Your task to perform on an android device: turn off smart reply in the gmail app Image 0: 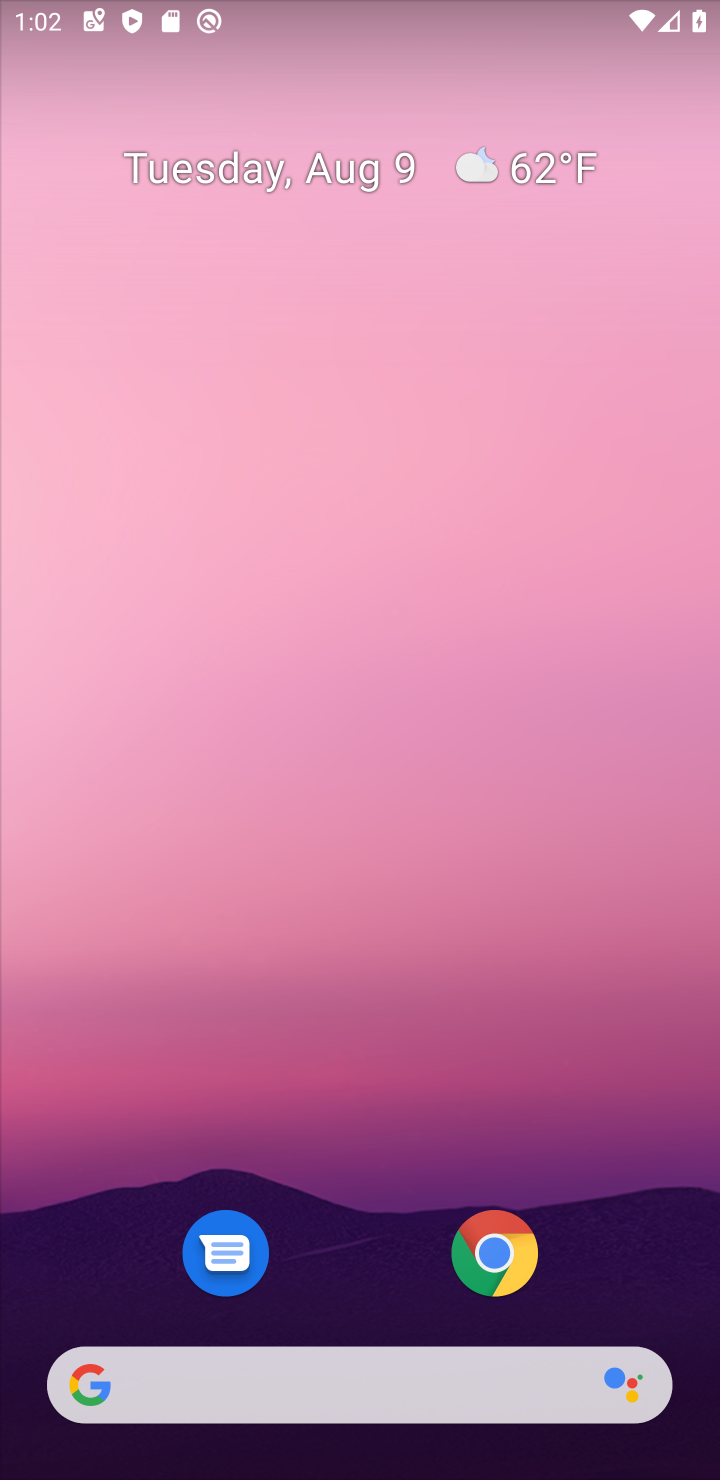
Step 0: drag from (627, 1257) to (389, 36)
Your task to perform on an android device: turn off smart reply in the gmail app Image 1: 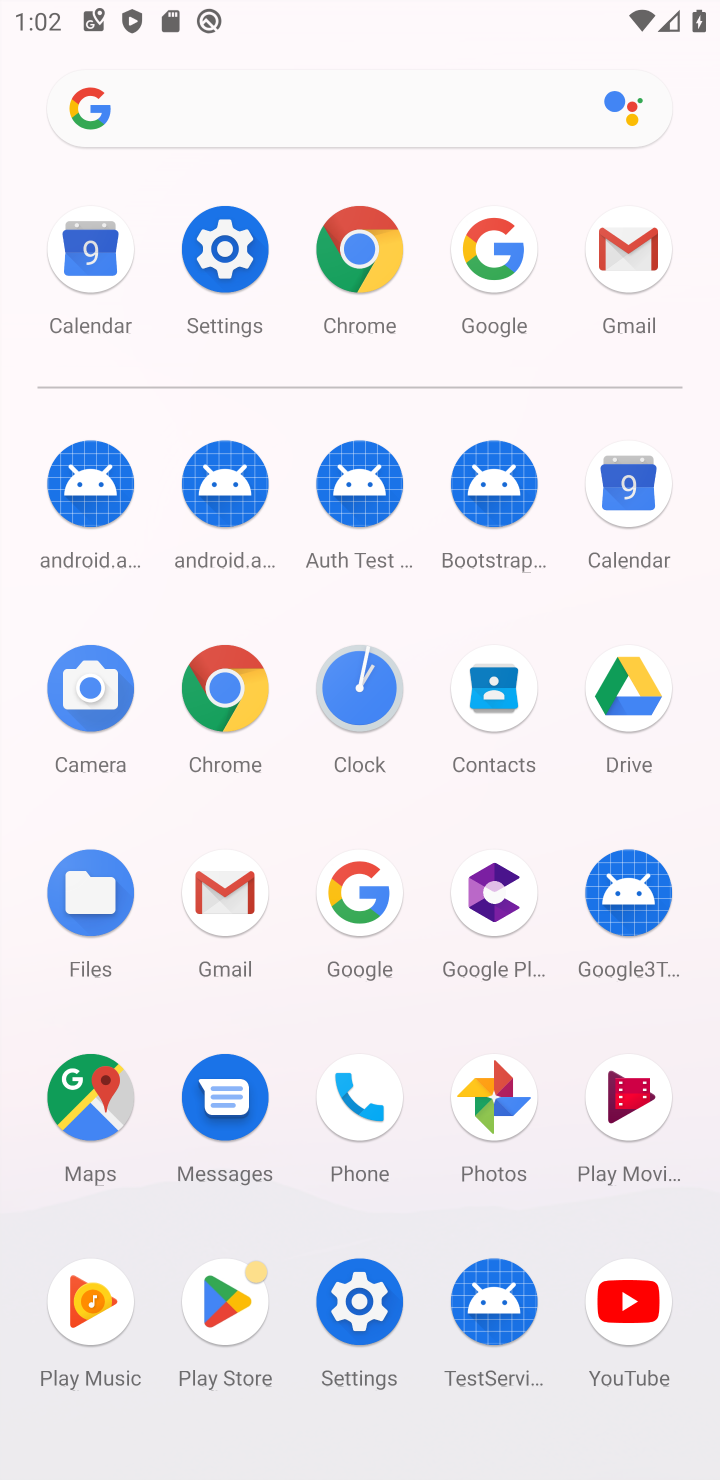
Step 1: click (231, 943)
Your task to perform on an android device: turn off smart reply in the gmail app Image 2: 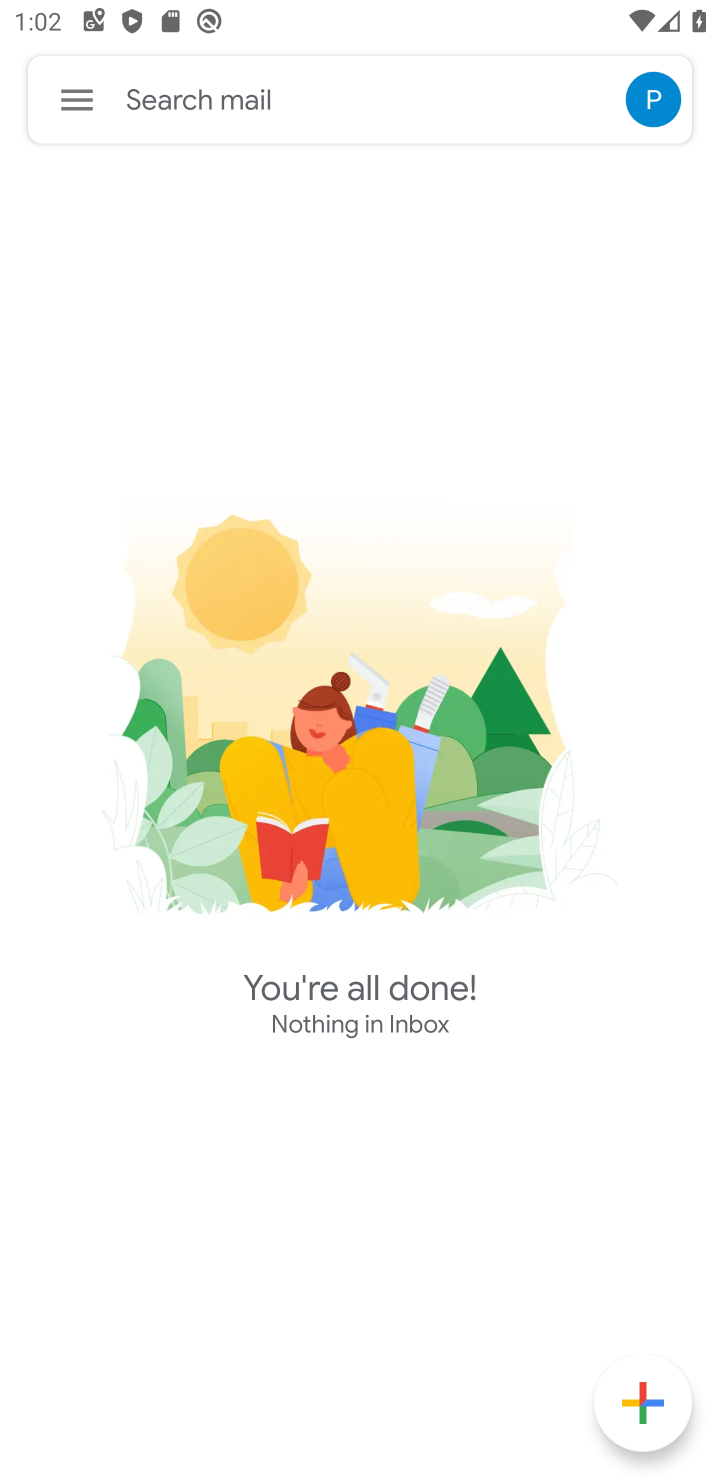
Step 2: click (66, 106)
Your task to perform on an android device: turn off smart reply in the gmail app Image 3: 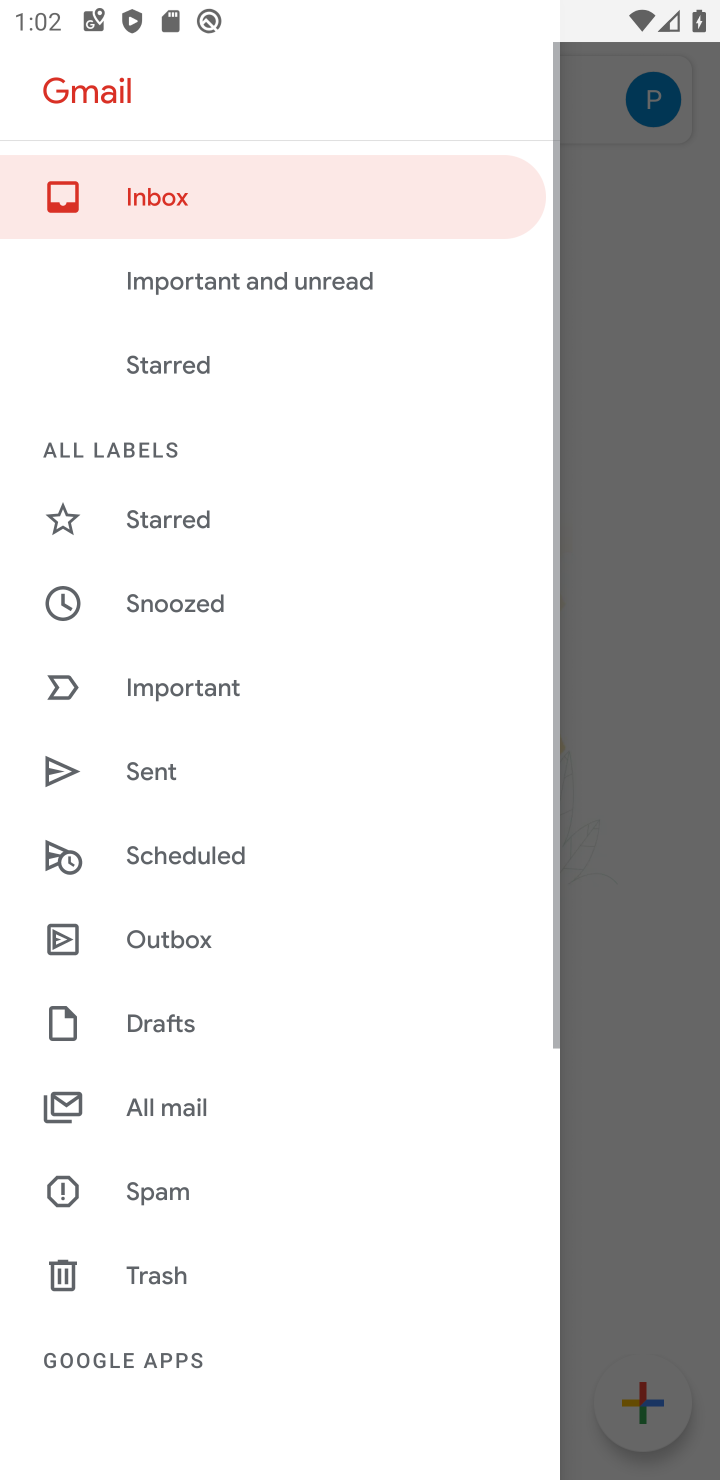
Step 3: drag from (207, 1306) to (211, 86)
Your task to perform on an android device: turn off smart reply in the gmail app Image 4: 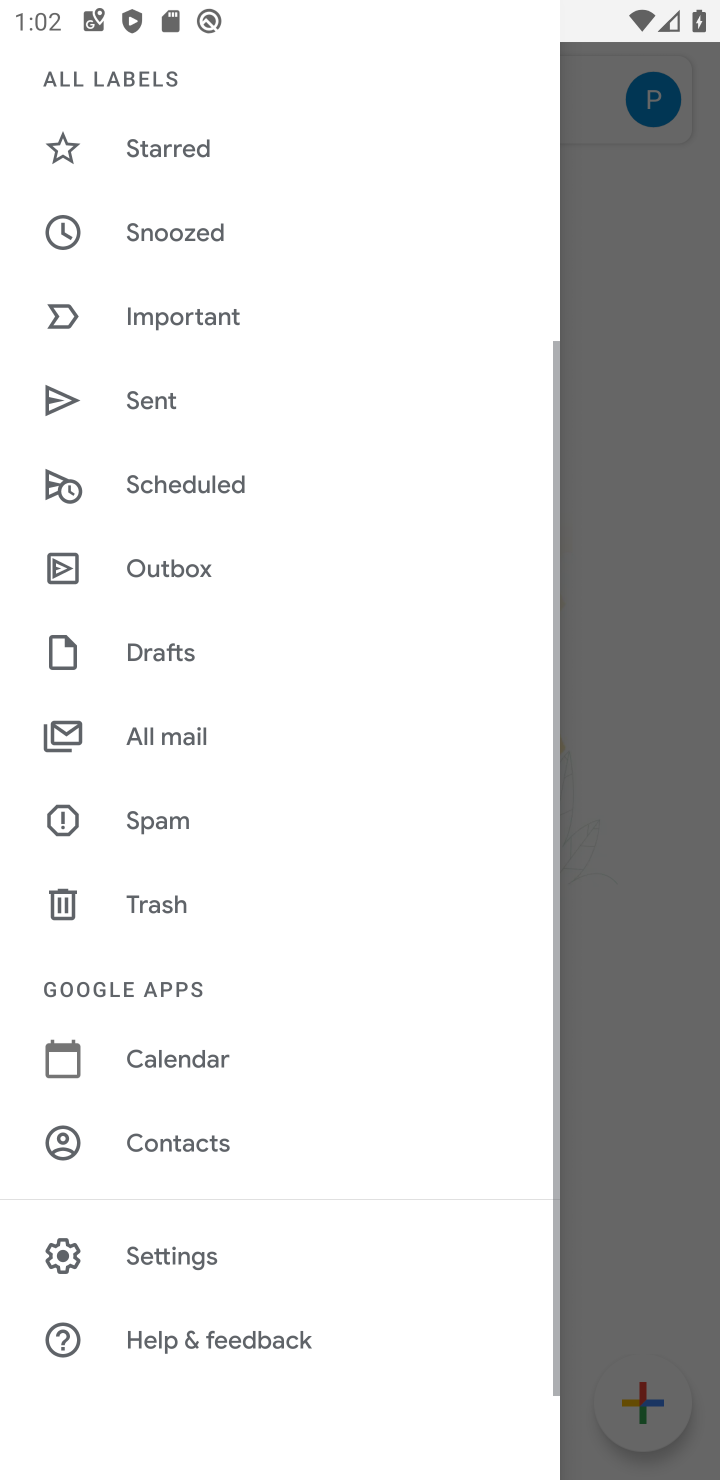
Step 4: click (209, 1260)
Your task to perform on an android device: turn off smart reply in the gmail app Image 5: 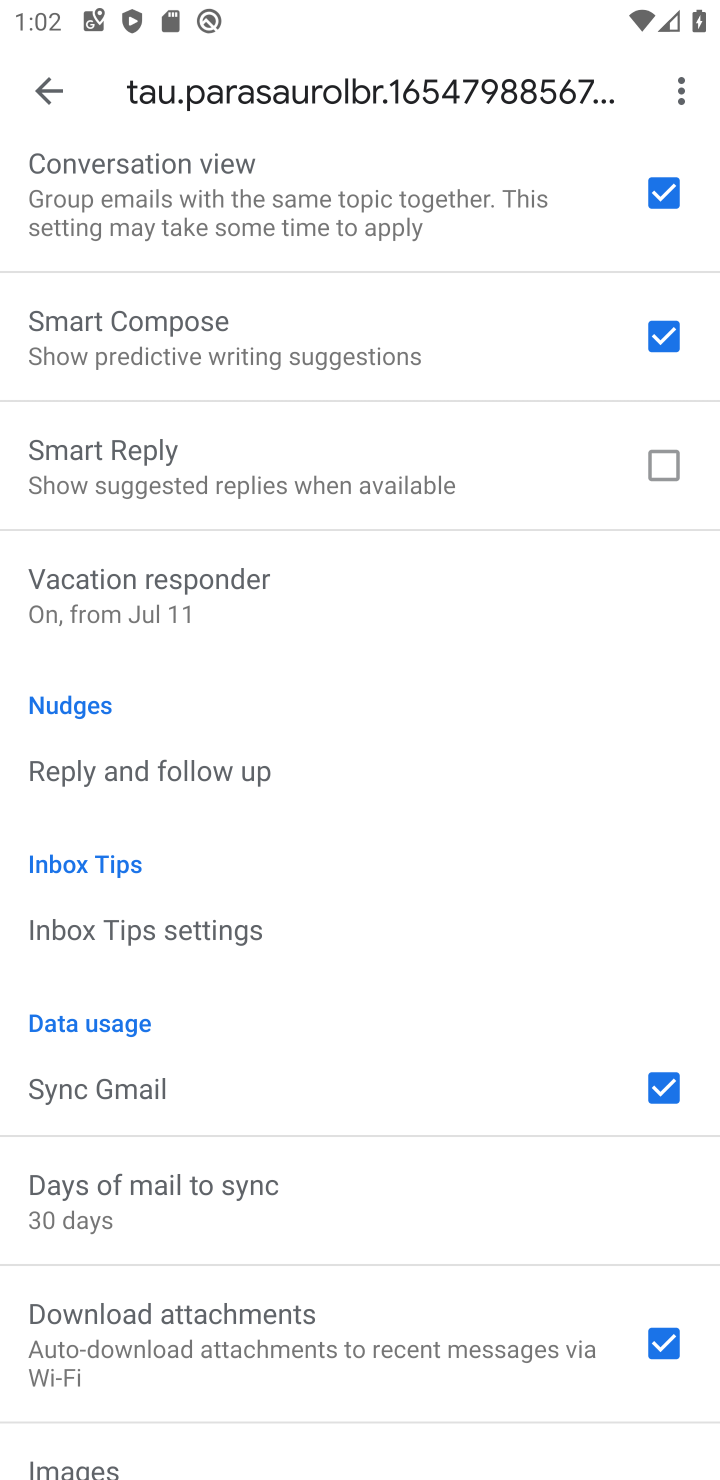
Step 5: task complete